Your task to perform on an android device: toggle pop-ups in chrome Image 0: 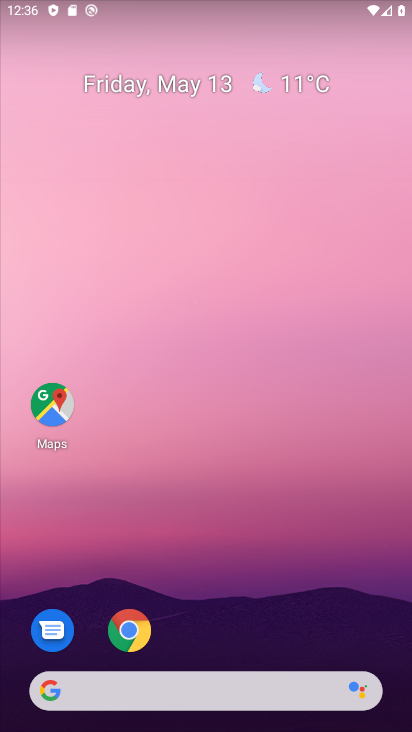
Step 0: drag from (286, 507) to (232, 211)
Your task to perform on an android device: toggle pop-ups in chrome Image 1: 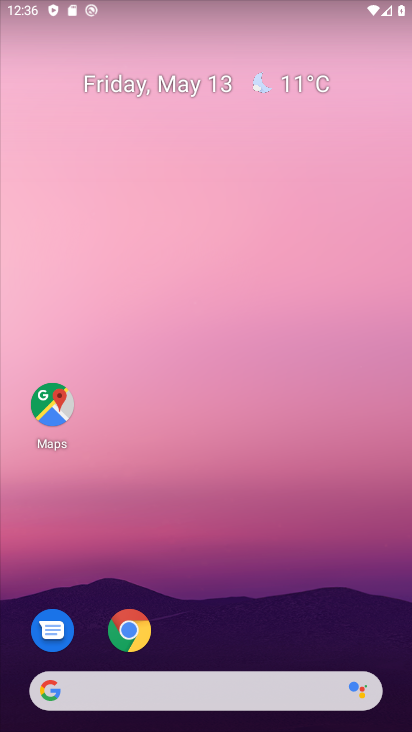
Step 1: drag from (273, 536) to (192, 103)
Your task to perform on an android device: toggle pop-ups in chrome Image 2: 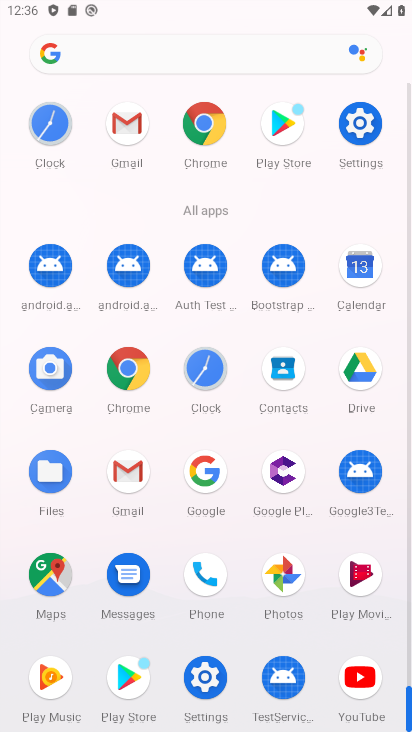
Step 2: click (133, 379)
Your task to perform on an android device: toggle pop-ups in chrome Image 3: 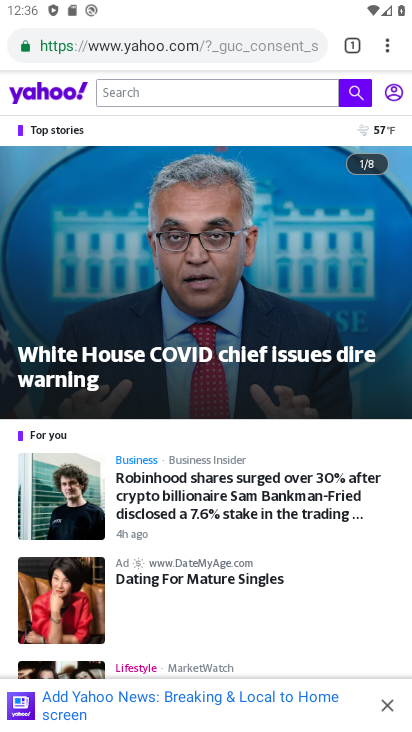
Step 3: click (383, 51)
Your task to perform on an android device: toggle pop-ups in chrome Image 4: 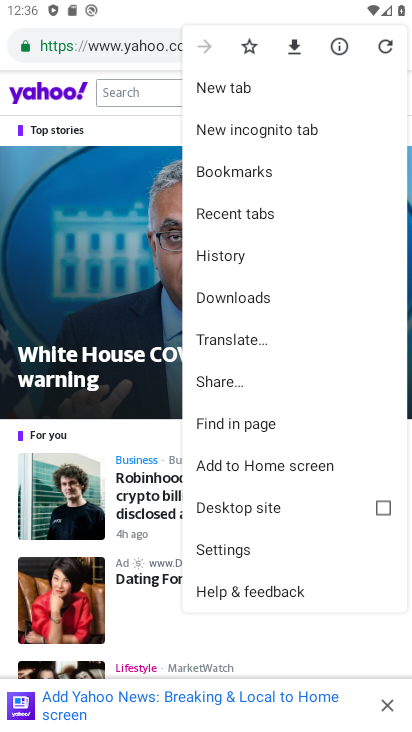
Step 4: click (260, 541)
Your task to perform on an android device: toggle pop-ups in chrome Image 5: 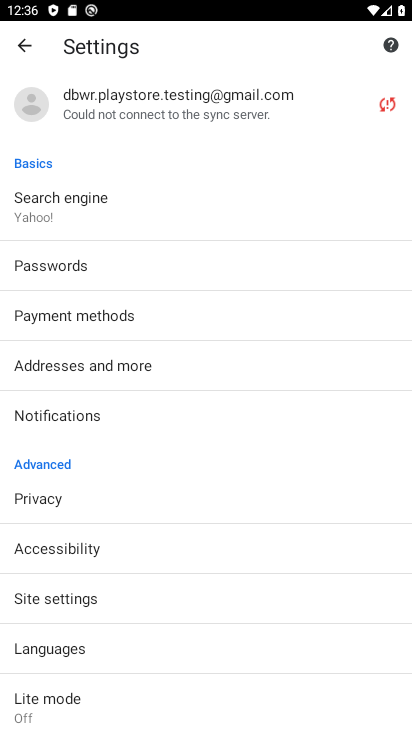
Step 5: click (79, 596)
Your task to perform on an android device: toggle pop-ups in chrome Image 6: 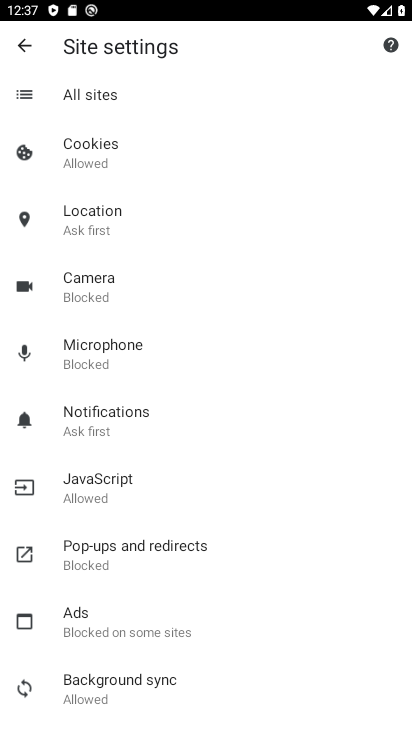
Step 6: drag from (174, 636) to (183, 397)
Your task to perform on an android device: toggle pop-ups in chrome Image 7: 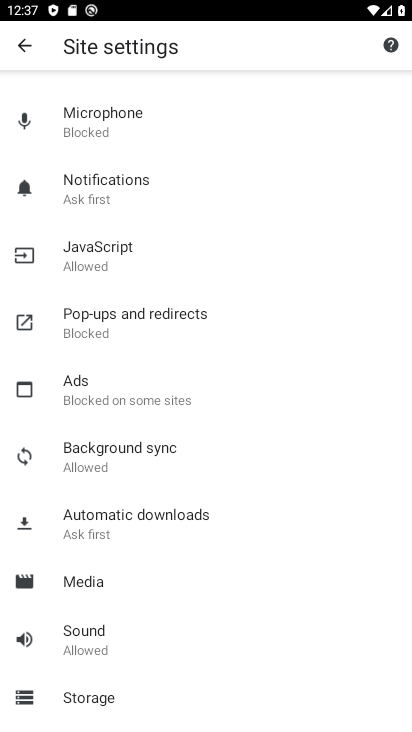
Step 7: click (160, 338)
Your task to perform on an android device: toggle pop-ups in chrome Image 8: 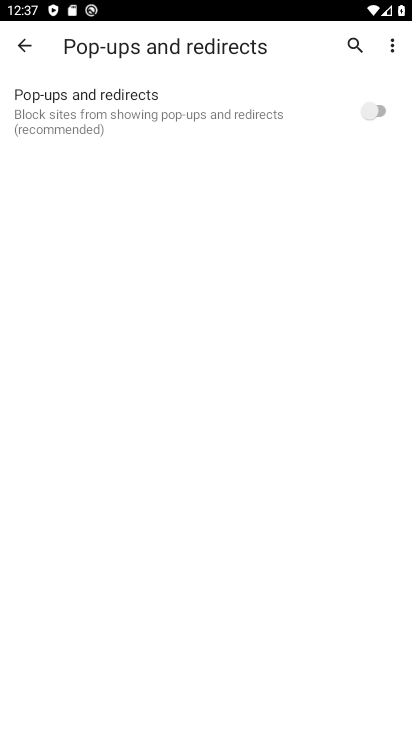
Step 8: click (364, 119)
Your task to perform on an android device: toggle pop-ups in chrome Image 9: 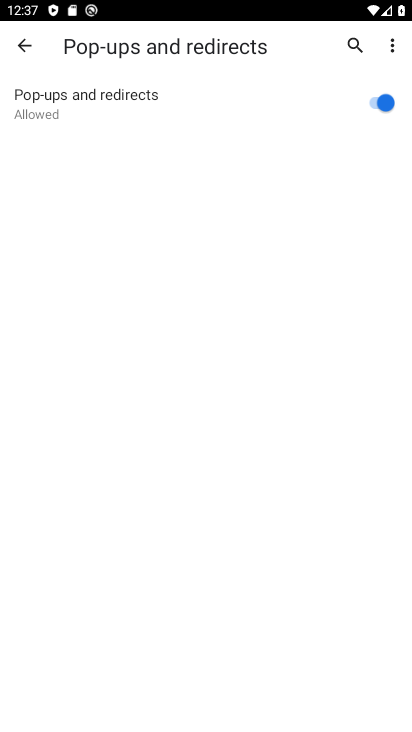
Step 9: task complete